Your task to perform on an android device: Open maps Image 0: 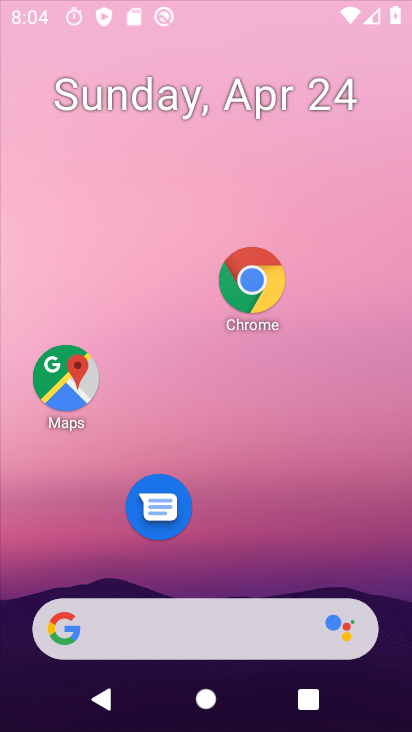
Step 0: drag from (153, 283) to (148, 155)
Your task to perform on an android device: Open maps Image 1: 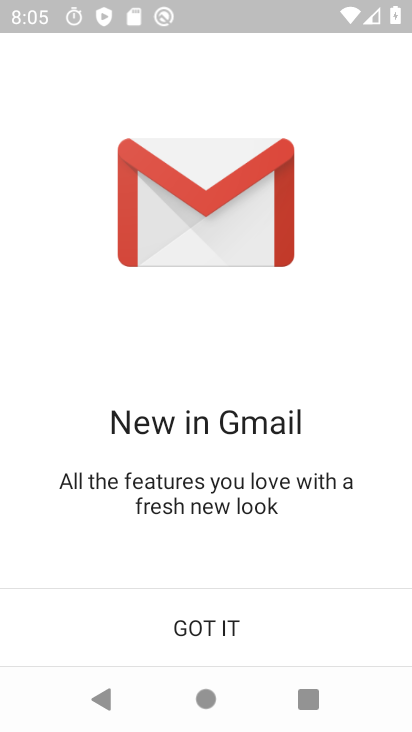
Step 1: click (204, 614)
Your task to perform on an android device: Open maps Image 2: 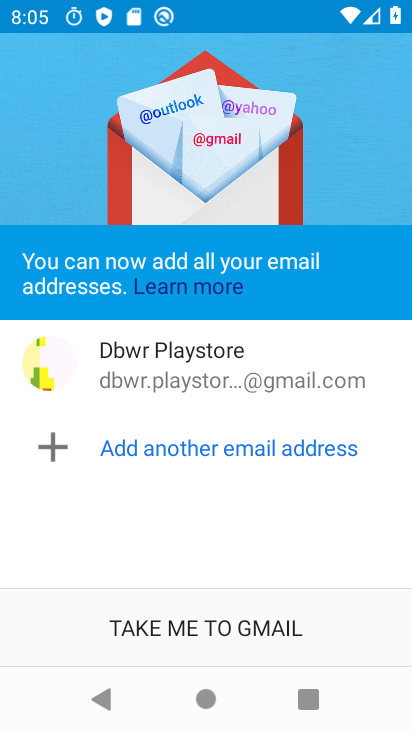
Step 2: click (211, 603)
Your task to perform on an android device: Open maps Image 3: 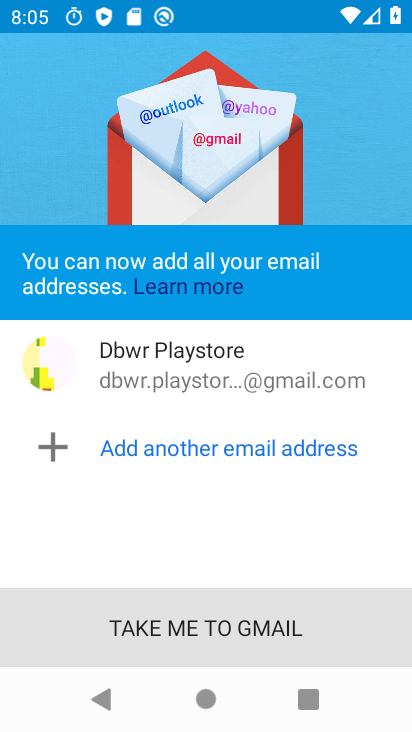
Step 3: click (211, 625)
Your task to perform on an android device: Open maps Image 4: 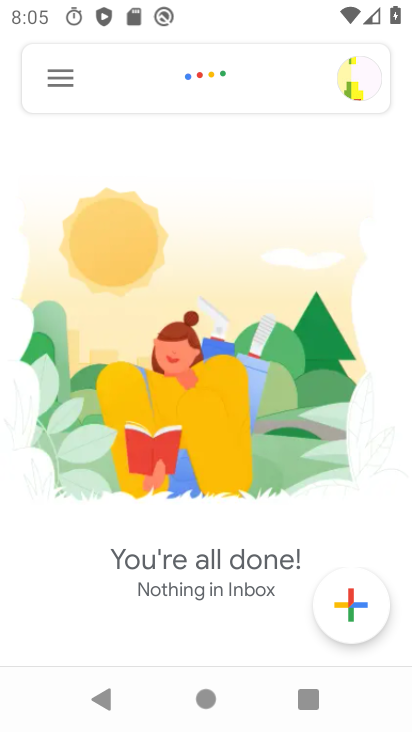
Step 4: press home button
Your task to perform on an android device: Open maps Image 5: 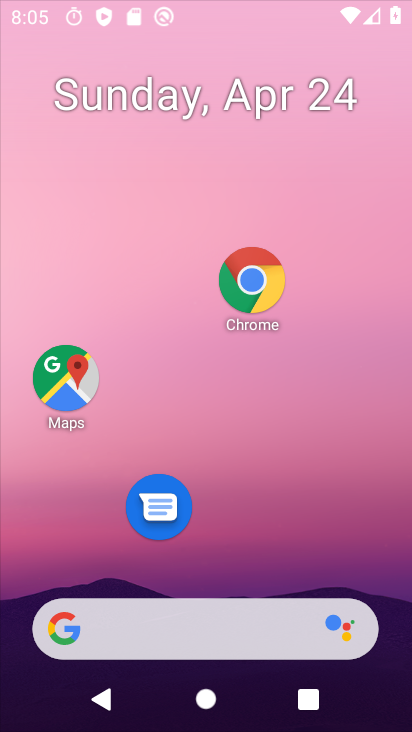
Step 5: press home button
Your task to perform on an android device: Open maps Image 6: 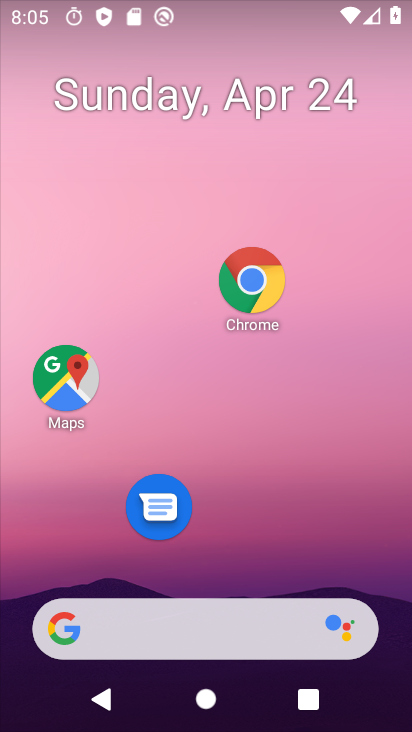
Step 6: drag from (272, 654) to (153, 97)
Your task to perform on an android device: Open maps Image 7: 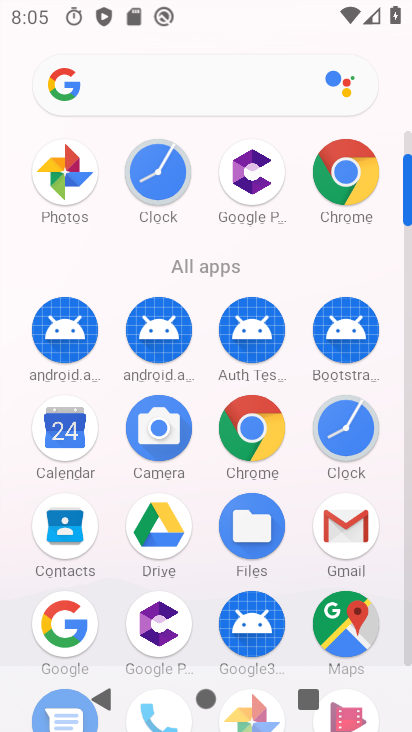
Step 7: click (353, 619)
Your task to perform on an android device: Open maps Image 8: 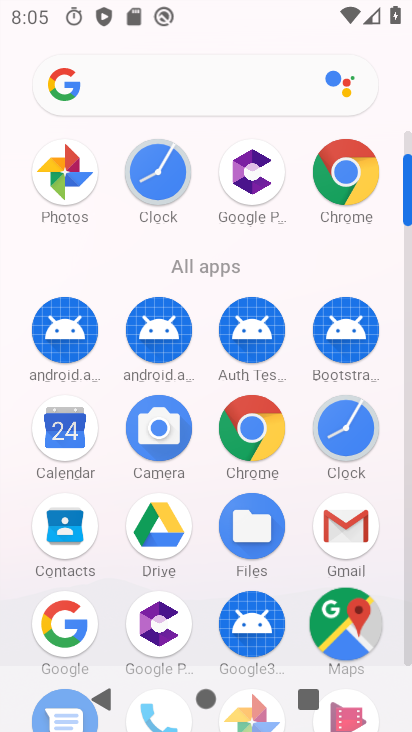
Step 8: click (353, 619)
Your task to perform on an android device: Open maps Image 9: 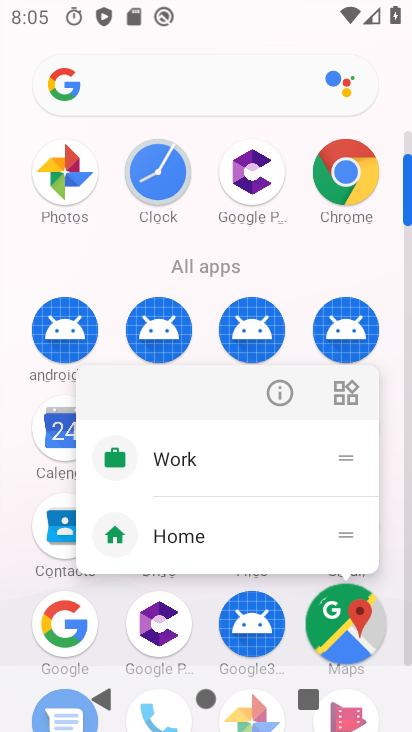
Step 9: click (353, 619)
Your task to perform on an android device: Open maps Image 10: 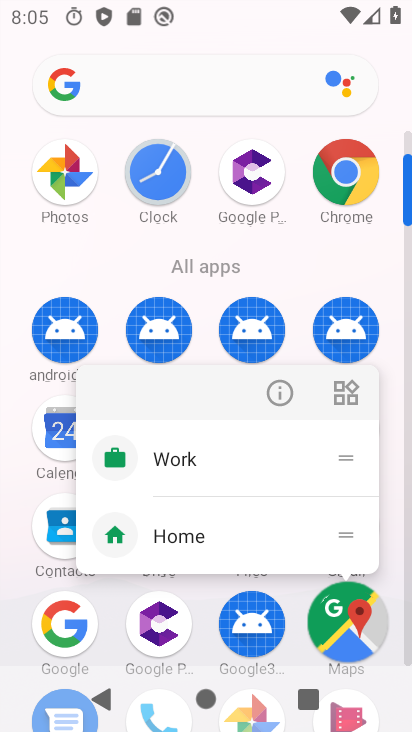
Step 10: click (355, 611)
Your task to perform on an android device: Open maps Image 11: 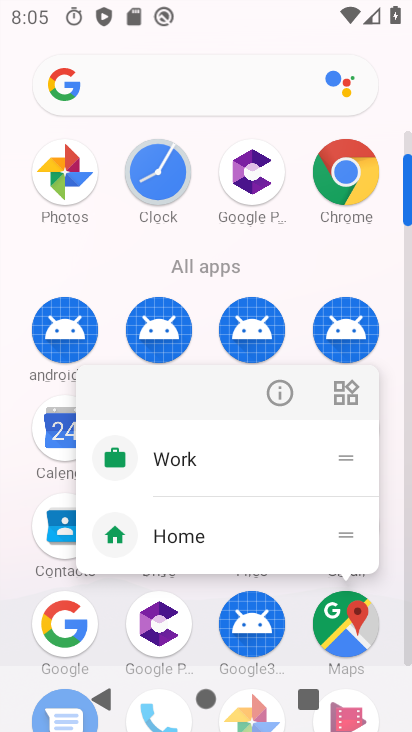
Step 11: click (321, 610)
Your task to perform on an android device: Open maps Image 12: 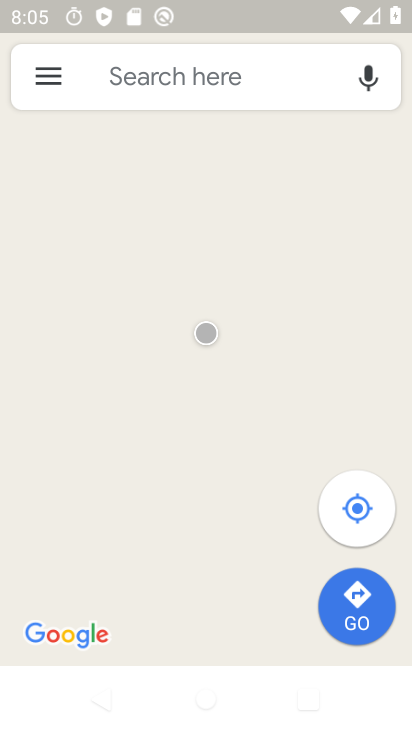
Step 12: task complete